Your task to perform on an android device: Show me popular videos on Youtube Image 0: 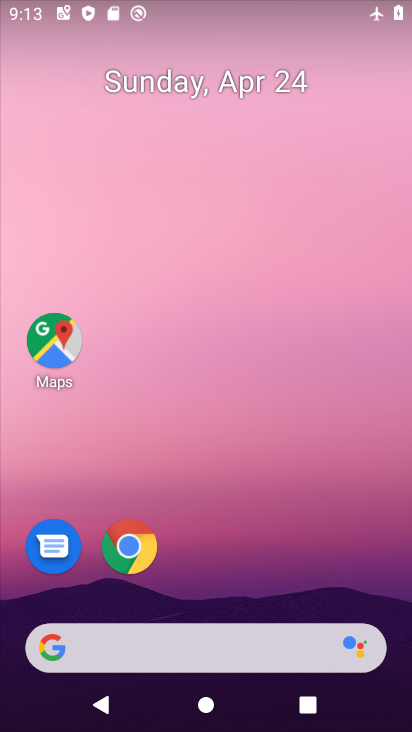
Step 0: drag from (312, 387) to (328, 311)
Your task to perform on an android device: Show me popular videos on Youtube Image 1: 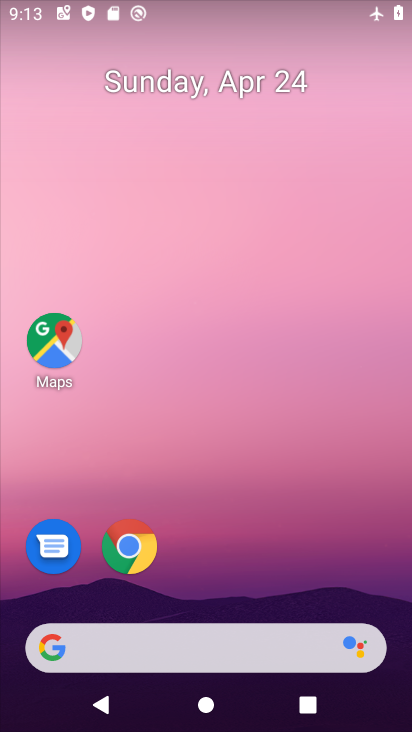
Step 1: drag from (256, 578) to (300, 220)
Your task to perform on an android device: Show me popular videos on Youtube Image 2: 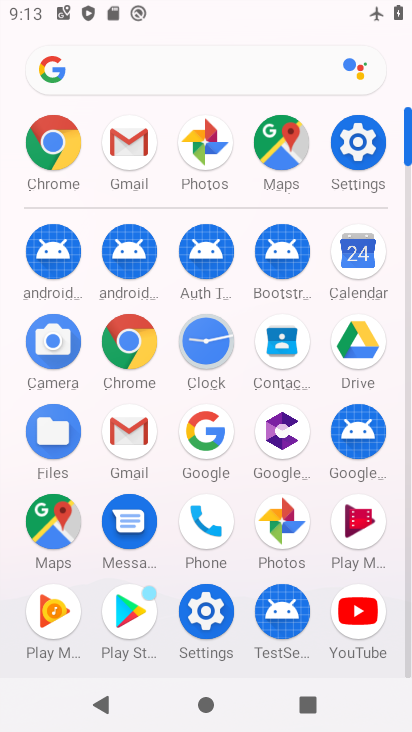
Step 2: click (363, 605)
Your task to perform on an android device: Show me popular videos on Youtube Image 3: 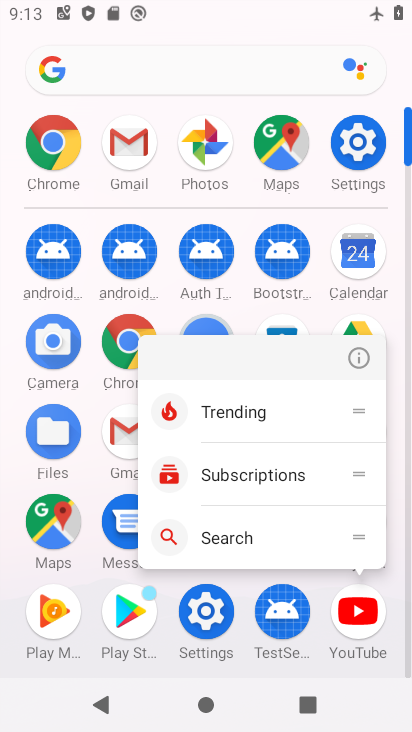
Step 3: click (363, 605)
Your task to perform on an android device: Show me popular videos on Youtube Image 4: 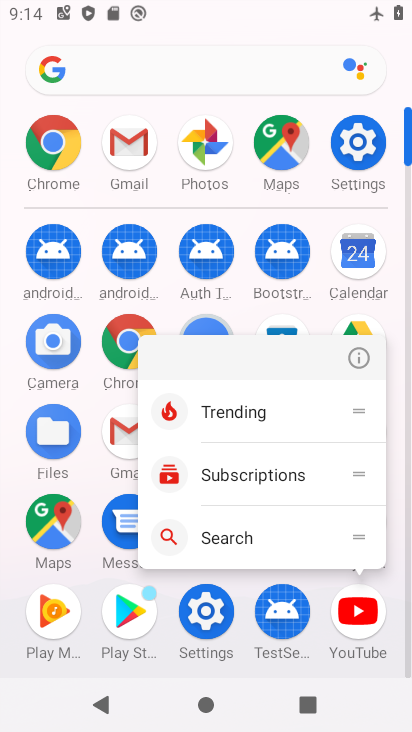
Step 4: click (363, 605)
Your task to perform on an android device: Show me popular videos on Youtube Image 5: 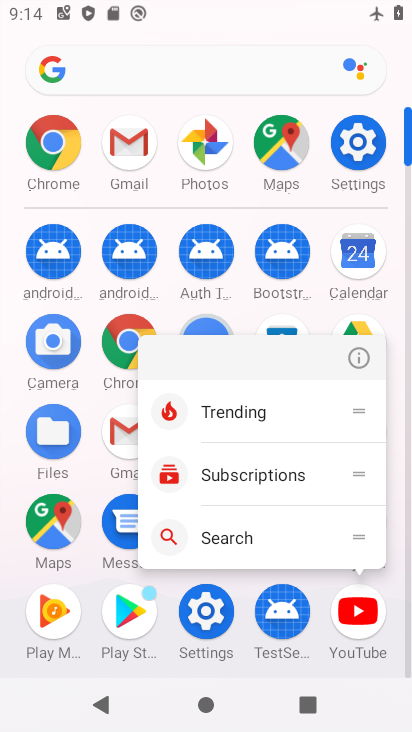
Step 5: click (363, 590)
Your task to perform on an android device: Show me popular videos on Youtube Image 6: 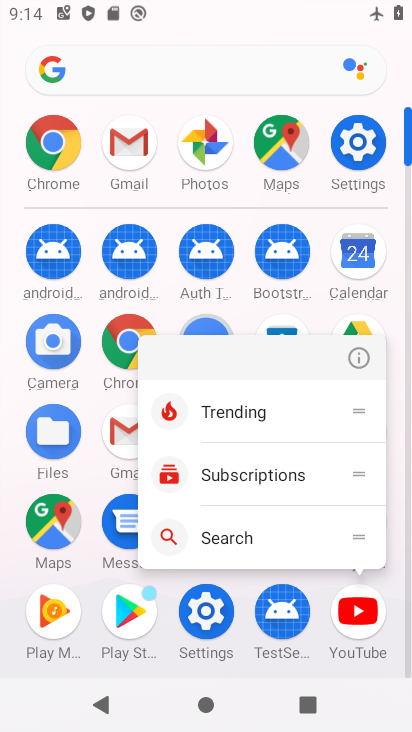
Step 6: click (346, 619)
Your task to perform on an android device: Show me popular videos on Youtube Image 7: 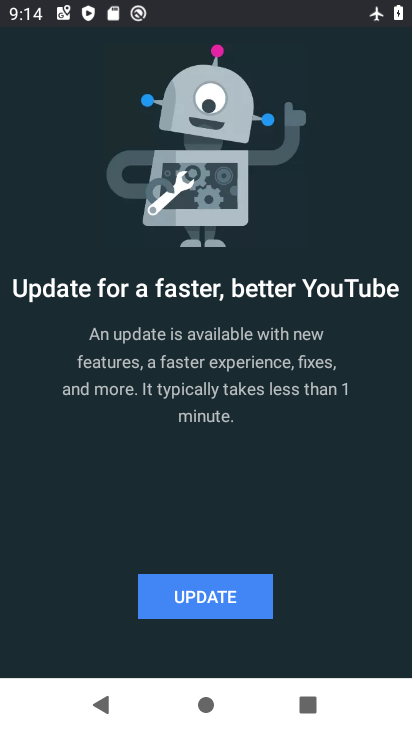
Step 7: task complete